Your task to perform on an android device: Open Youtube and go to "Your channel" Image 0: 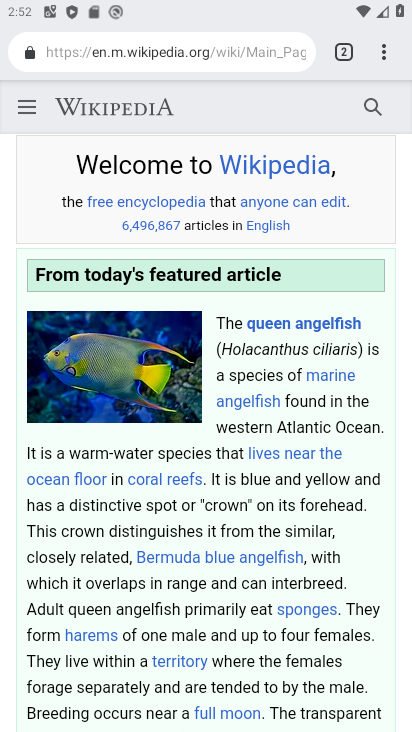
Step 0: press home button
Your task to perform on an android device: Open Youtube and go to "Your channel" Image 1: 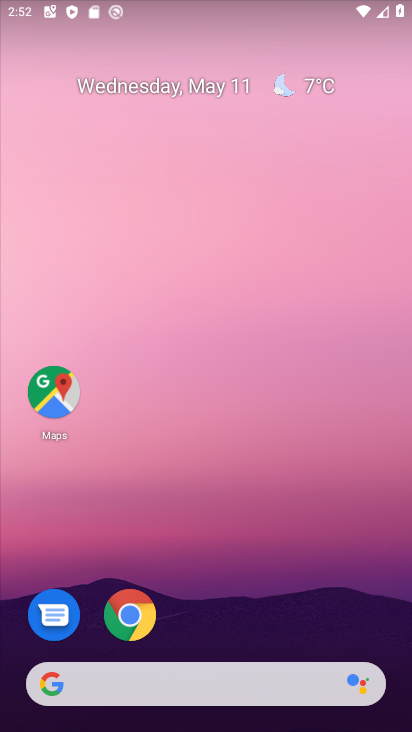
Step 1: drag from (219, 624) to (202, 138)
Your task to perform on an android device: Open Youtube and go to "Your channel" Image 2: 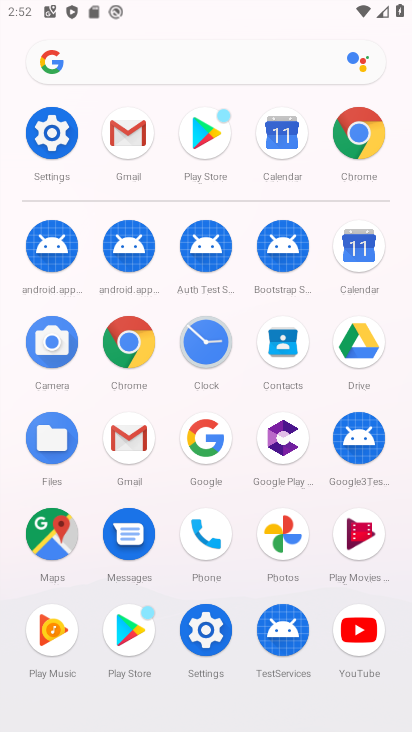
Step 2: click (358, 626)
Your task to perform on an android device: Open Youtube and go to "Your channel" Image 3: 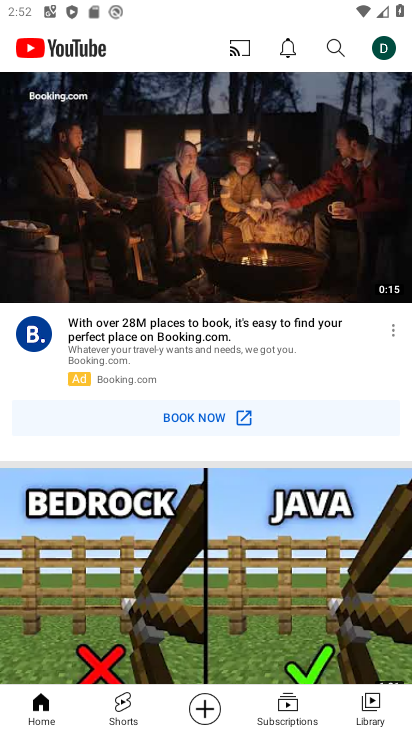
Step 3: click (387, 45)
Your task to perform on an android device: Open Youtube and go to "Your channel" Image 4: 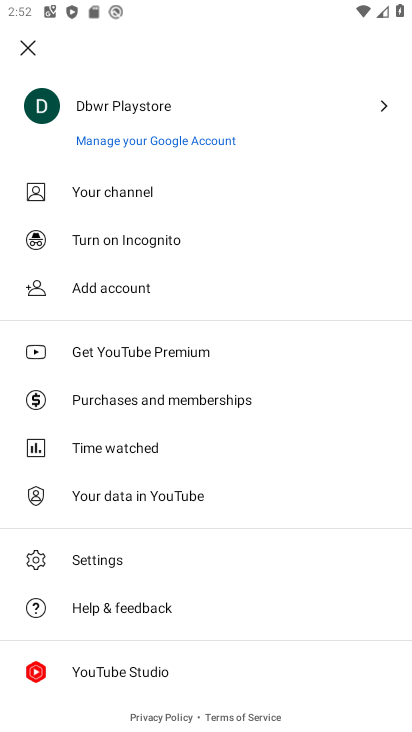
Step 4: click (140, 199)
Your task to perform on an android device: Open Youtube and go to "Your channel" Image 5: 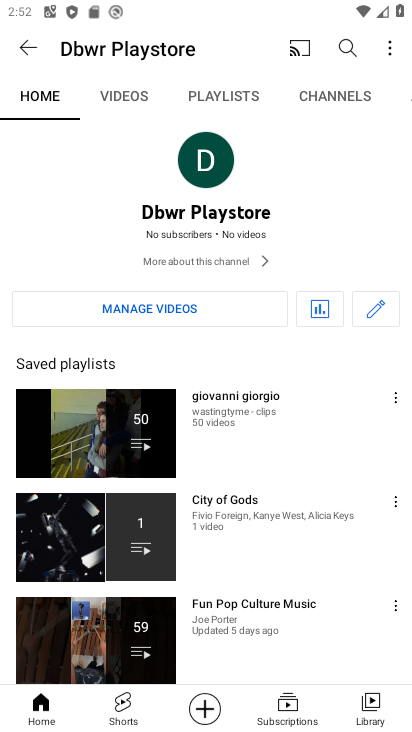
Step 5: task complete